Your task to perform on an android device: Open maps Image 0: 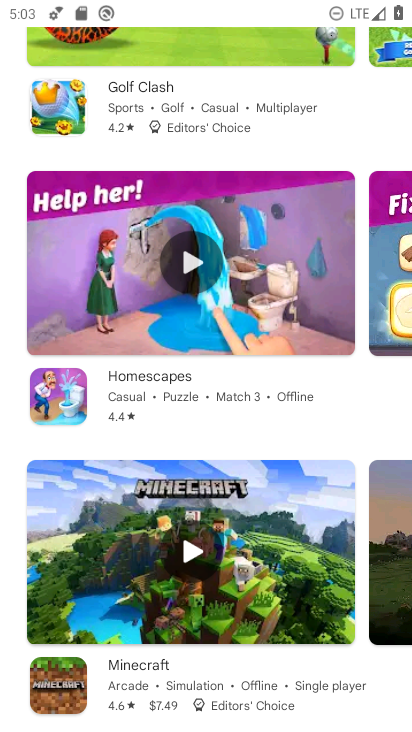
Step 0: press home button
Your task to perform on an android device: Open maps Image 1: 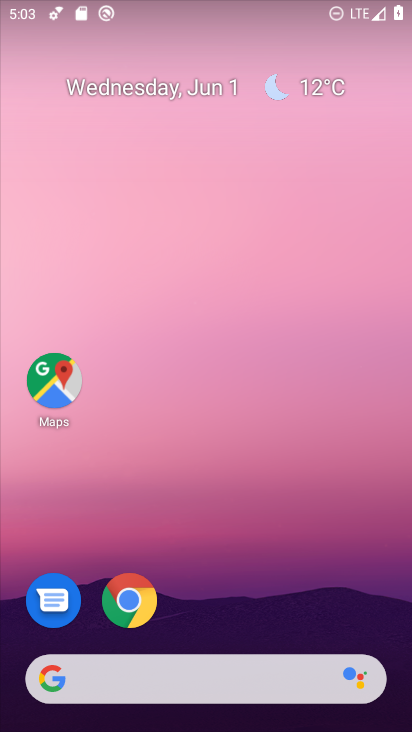
Step 1: click (57, 382)
Your task to perform on an android device: Open maps Image 2: 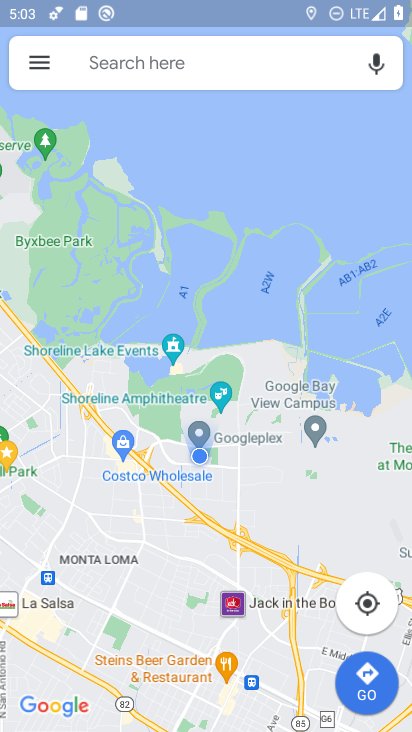
Step 2: task complete